Your task to perform on an android device: Go to Google maps Image 0: 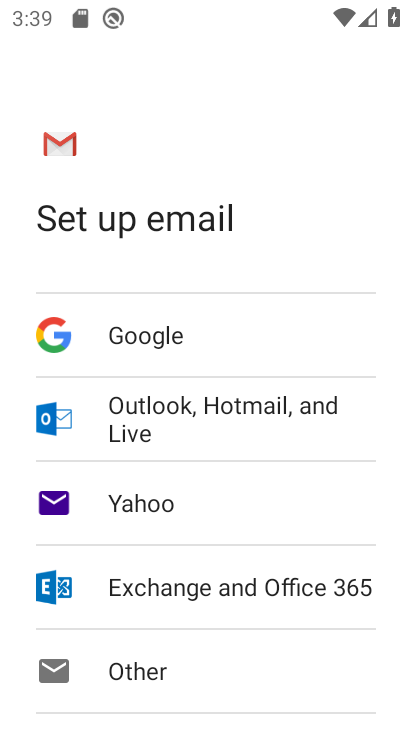
Step 0: press back button
Your task to perform on an android device: Go to Google maps Image 1: 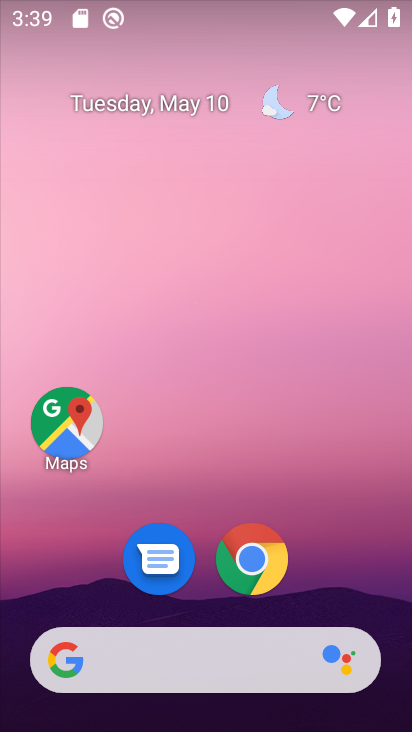
Step 1: click (69, 441)
Your task to perform on an android device: Go to Google maps Image 2: 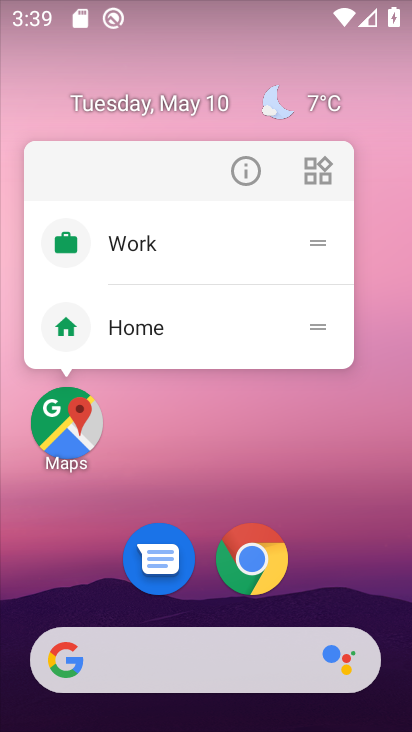
Step 2: click (74, 436)
Your task to perform on an android device: Go to Google maps Image 3: 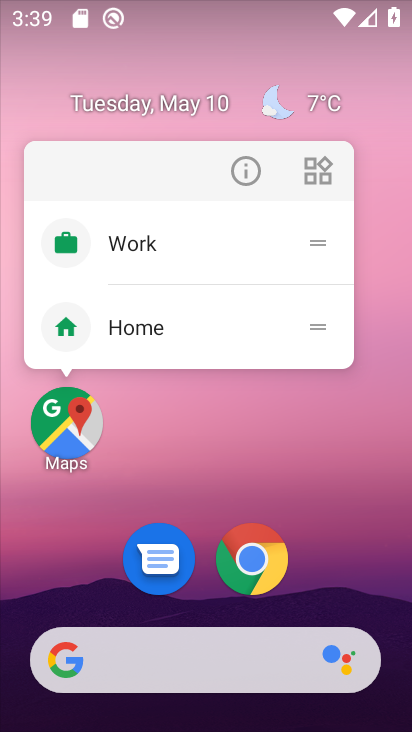
Step 3: click (75, 435)
Your task to perform on an android device: Go to Google maps Image 4: 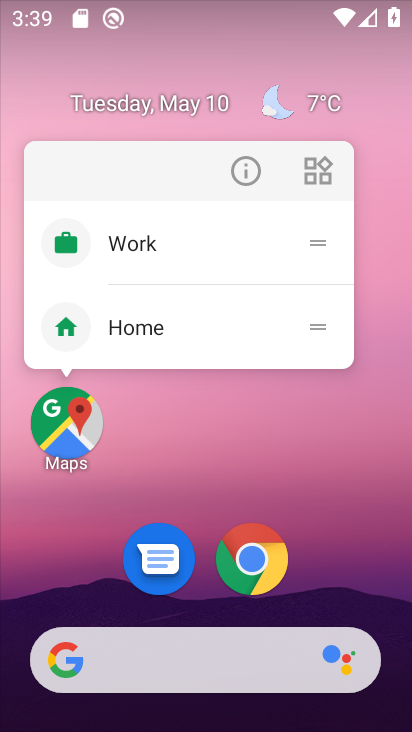
Step 4: click (78, 430)
Your task to perform on an android device: Go to Google maps Image 5: 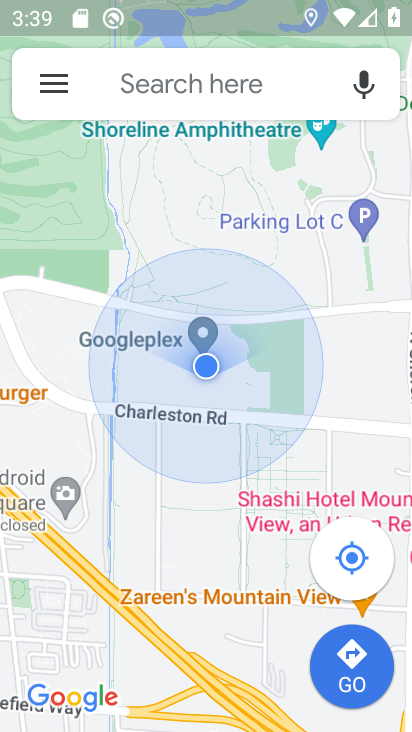
Step 5: task complete